Your task to perform on an android device: turn smart compose on in the gmail app Image 0: 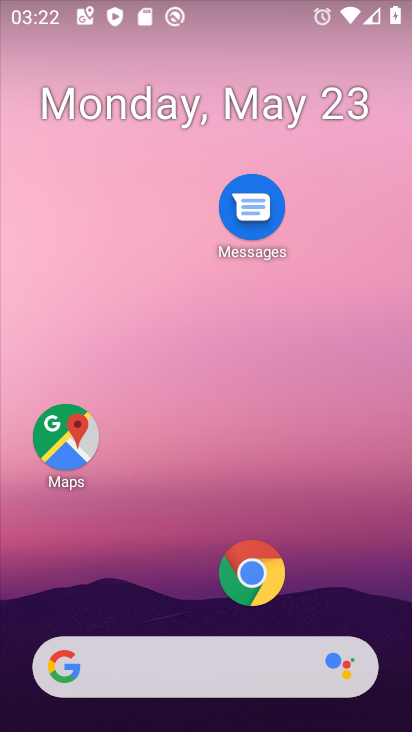
Step 0: drag from (326, 441) to (345, 12)
Your task to perform on an android device: turn smart compose on in the gmail app Image 1: 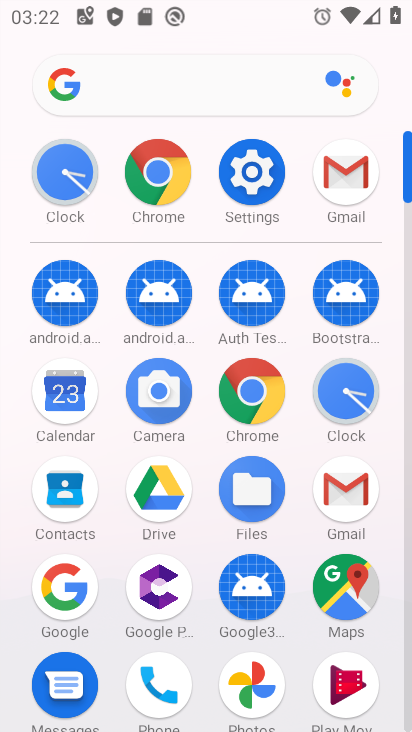
Step 1: click (344, 503)
Your task to perform on an android device: turn smart compose on in the gmail app Image 2: 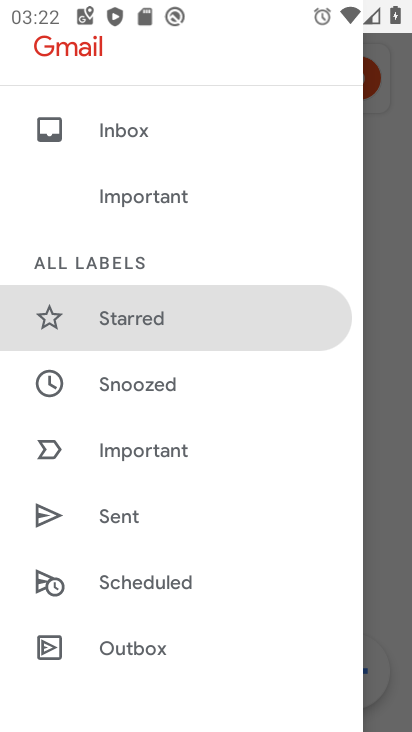
Step 2: drag from (193, 662) to (191, 67)
Your task to perform on an android device: turn smart compose on in the gmail app Image 3: 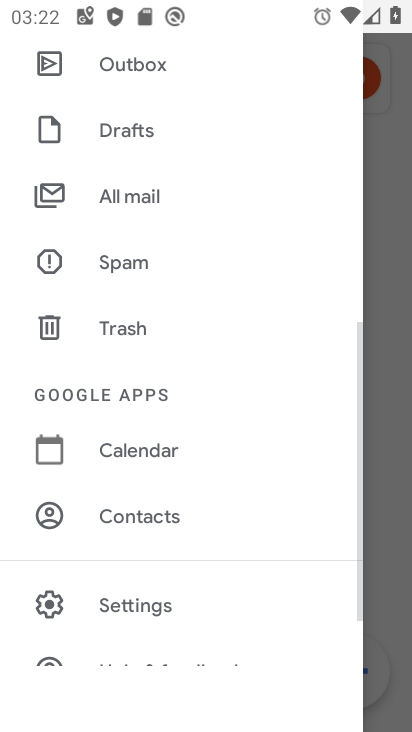
Step 3: click (178, 608)
Your task to perform on an android device: turn smart compose on in the gmail app Image 4: 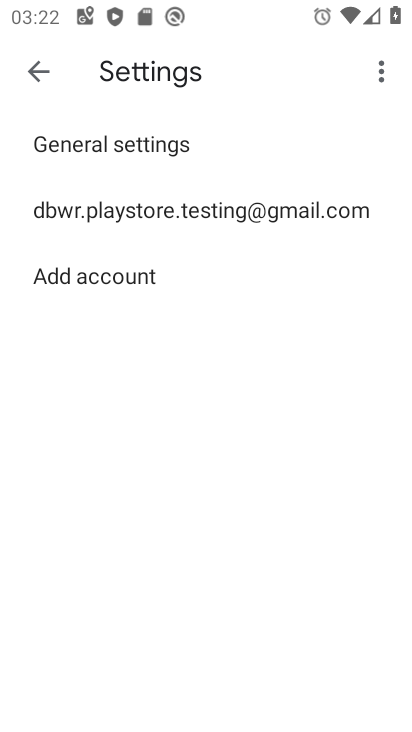
Step 4: click (200, 206)
Your task to perform on an android device: turn smart compose on in the gmail app Image 5: 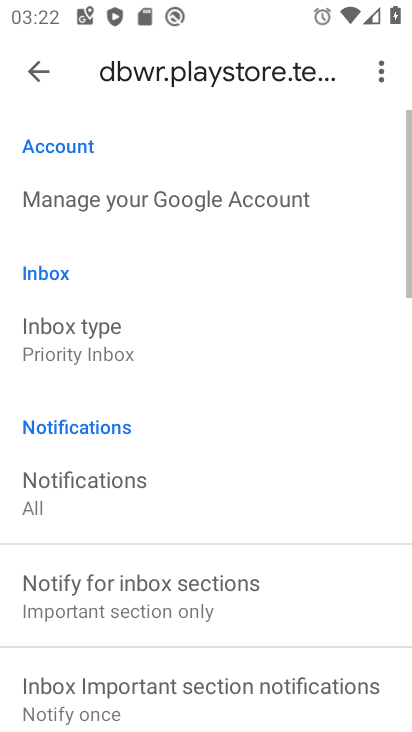
Step 5: drag from (284, 648) to (280, 95)
Your task to perform on an android device: turn smart compose on in the gmail app Image 6: 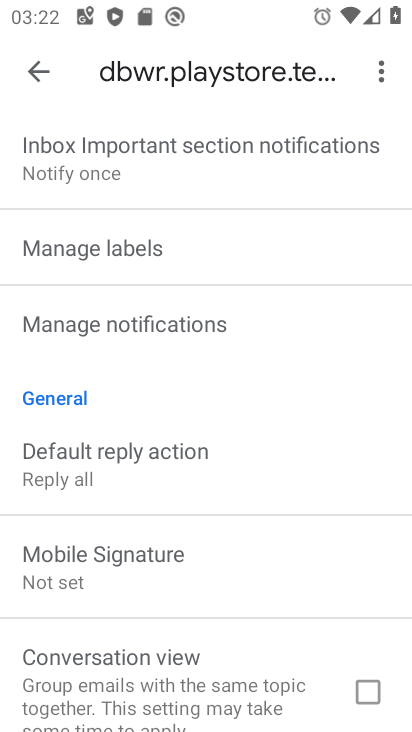
Step 6: drag from (254, 647) to (281, 120)
Your task to perform on an android device: turn smart compose on in the gmail app Image 7: 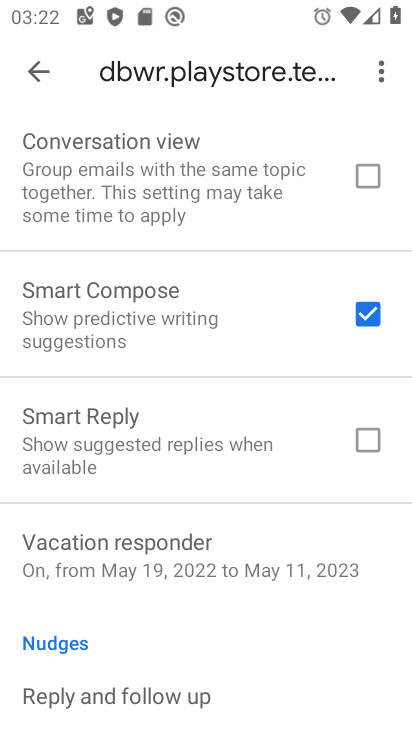
Step 7: click (357, 444)
Your task to perform on an android device: turn smart compose on in the gmail app Image 8: 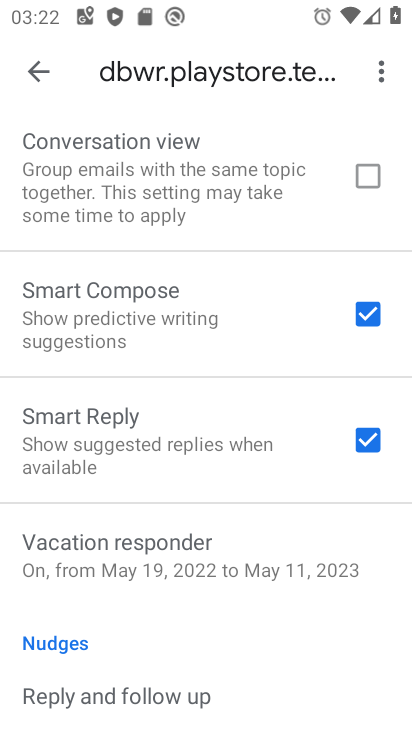
Step 8: task complete